Your task to perform on an android device: Go to Wikipedia Image 0: 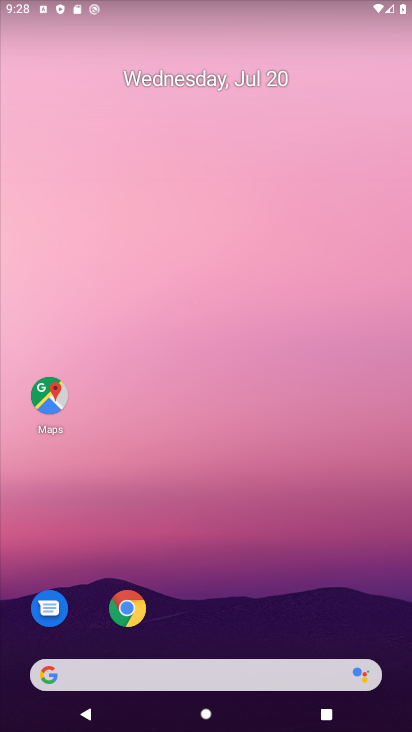
Step 0: drag from (236, 624) to (233, 61)
Your task to perform on an android device: Go to Wikipedia Image 1: 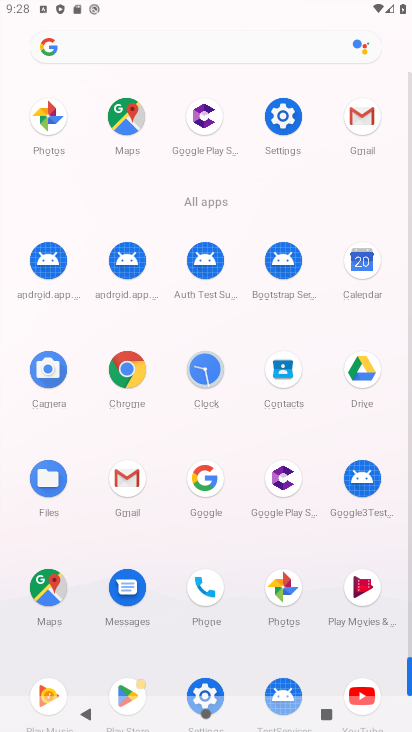
Step 1: click (131, 380)
Your task to perform on an android device: Go to Wikipedia Image 2: 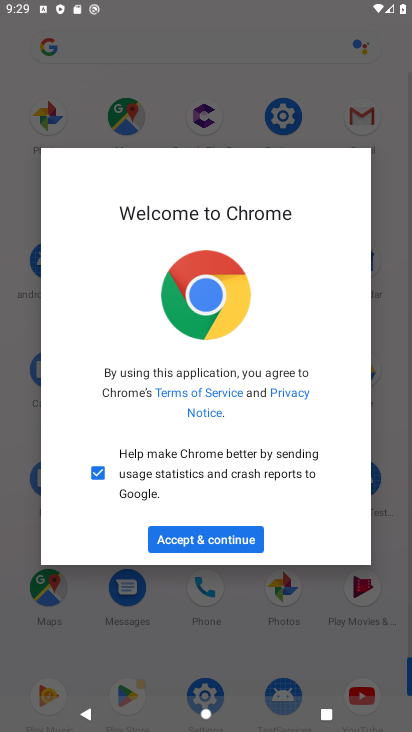
Step 2: click (208, 547)
Your task to perform on an android device: Go to Wikipedia Image 3: 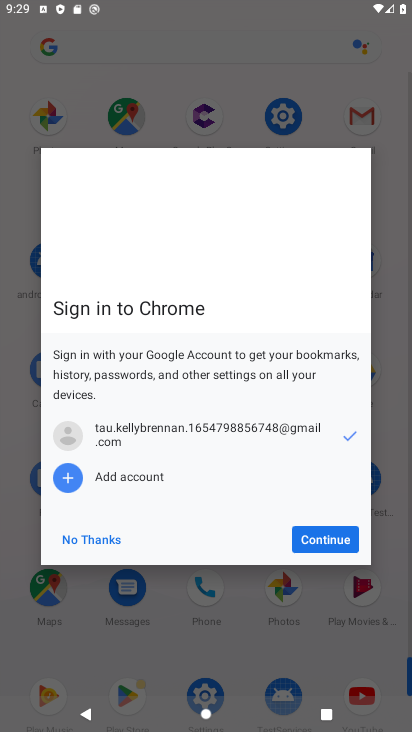
Step 3: click (335, 539)
Your task to perform on an android device: Go to Wikipedia Image 4: 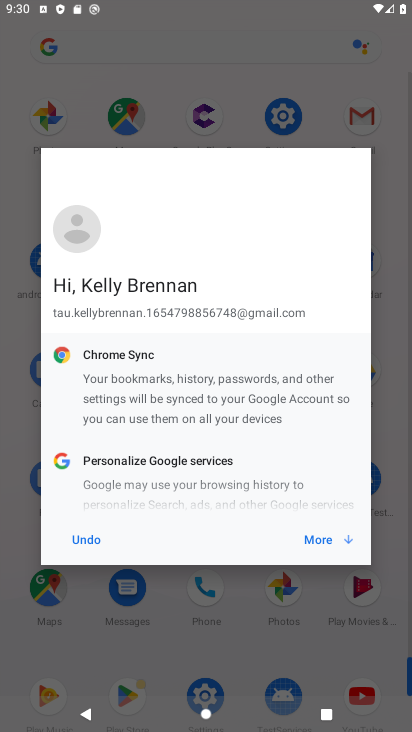
Step 4: click (327, 555)
Your task to perform on an android device: Go to Wikipedia Image 5: 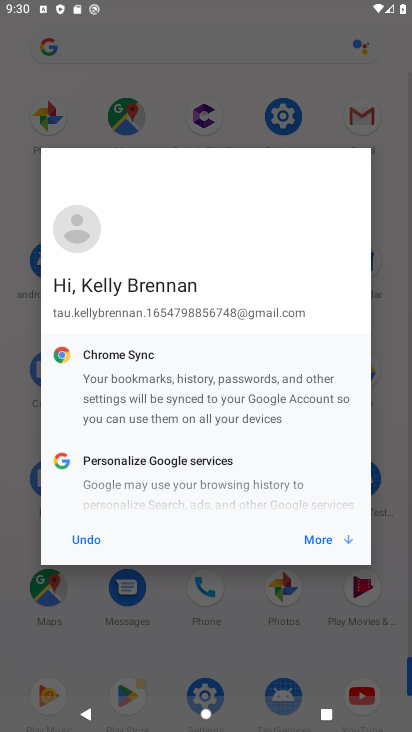
Step 5: click (332, 546)
Your task to perform on an android device: Go to Wikipedia Image 6: 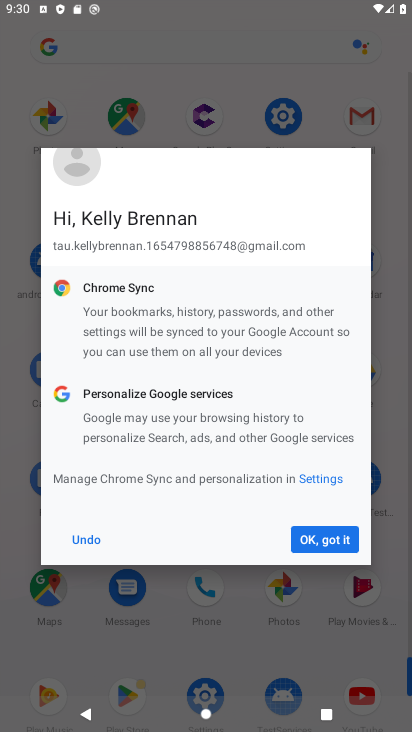
Step 6: click (333, 546)
Your task to perform on an android device: Go to Wikipedia Image 7: 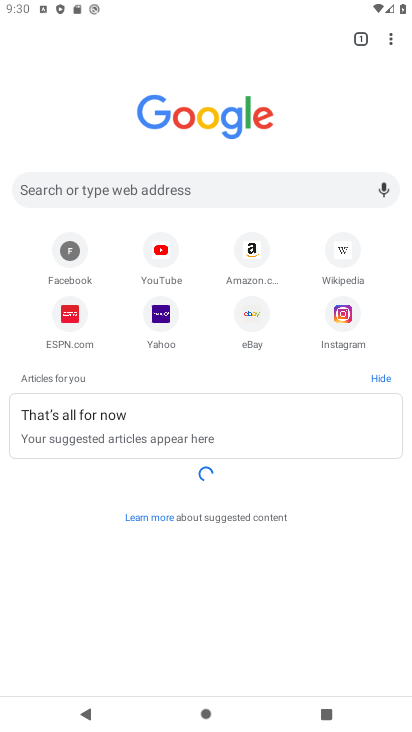
Step 7: click (344, 264)
Your task to perform on an android device: Go to Wikipedia Image 8: 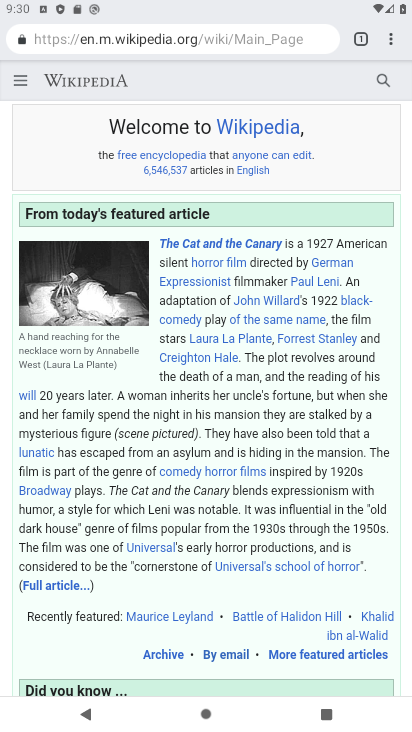
Step 8: task complete